Your task to perform on an android device: open wifi settings Image 0: 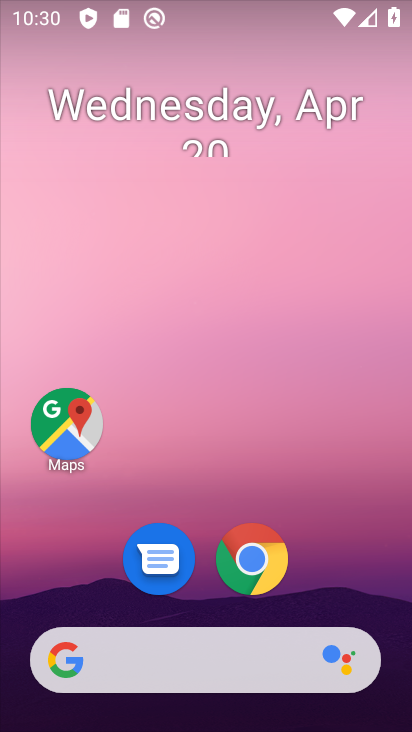
Step 0: drag from (301, 612) to (294, 11)
Your task to perform on an android device: open wifi settings Image 1: 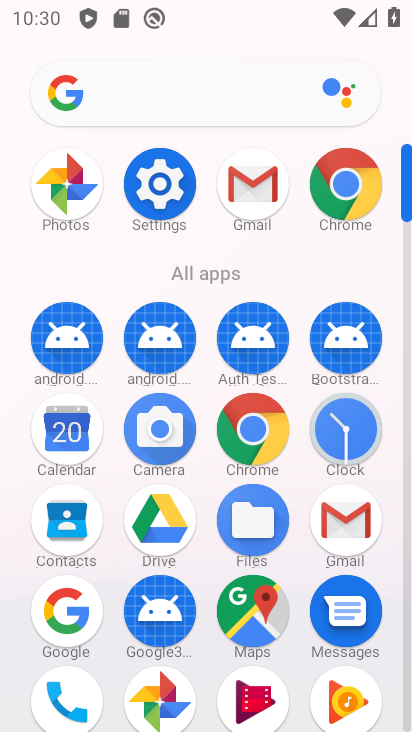
Step 1: drag from (208, 651) to (209, 183)
Your task to perform on an android device: open wifi settings Image 2: 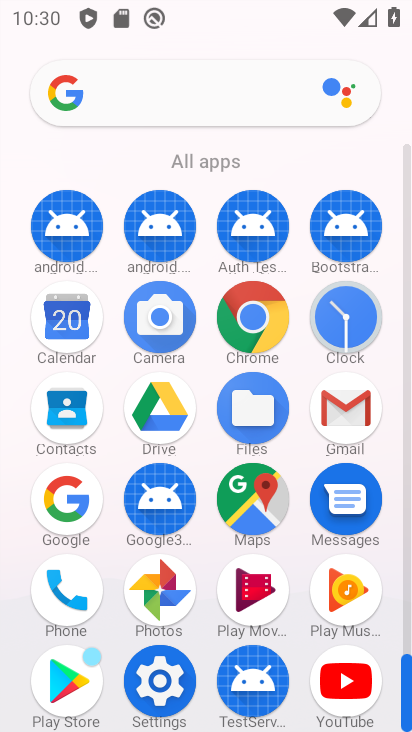
Step 2: click (170, 687)
Your task to perform on an android device: open wifi settings Image 3: 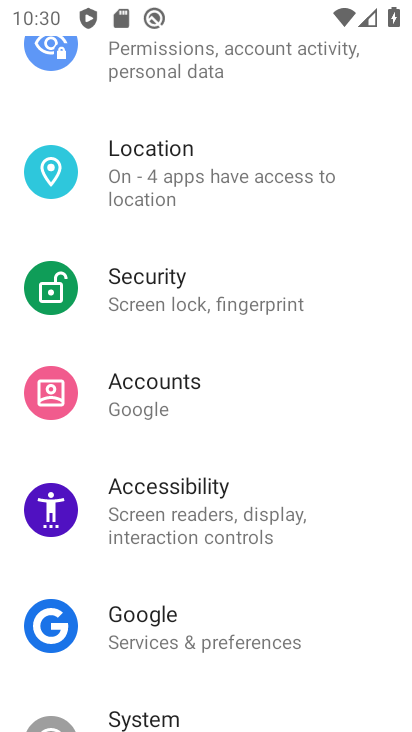
Step 3: drag from (250, 195) to (259, 674)
Your task to perform on an android device: open wifi settings Image 4: 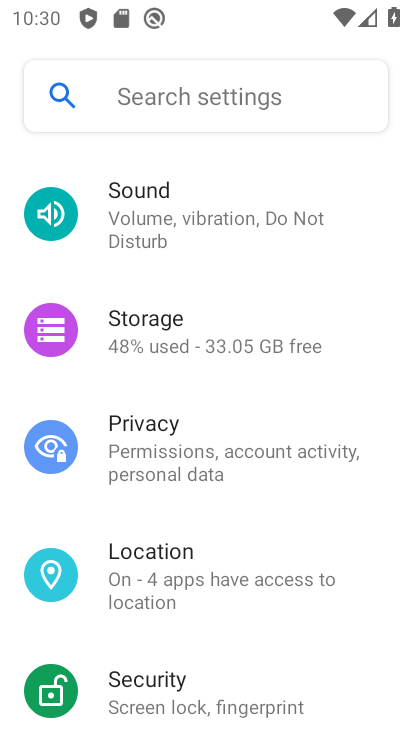
Step 4: drag from (198, 297) to (178, 681)
Your task to perform on an android device: open wifi settings Image 5: 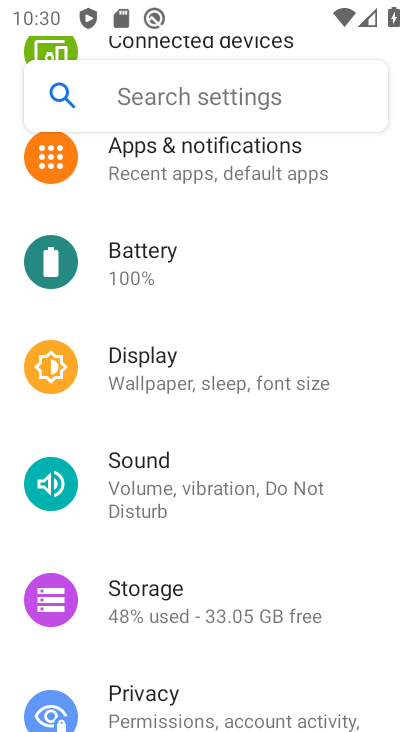
Step 5: drag from (189, 342) to (171, 707)
Your task to perform on an android device: open wifi settings Image 6: 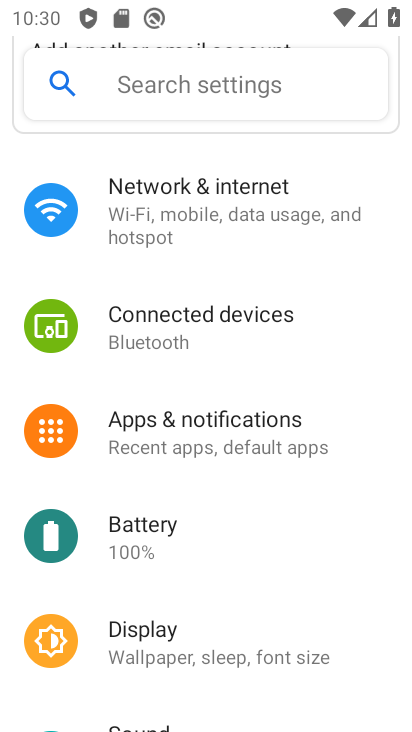
Step 6: click (201, 224)
Your task to perform on an android device: open wifi settings Image 7: 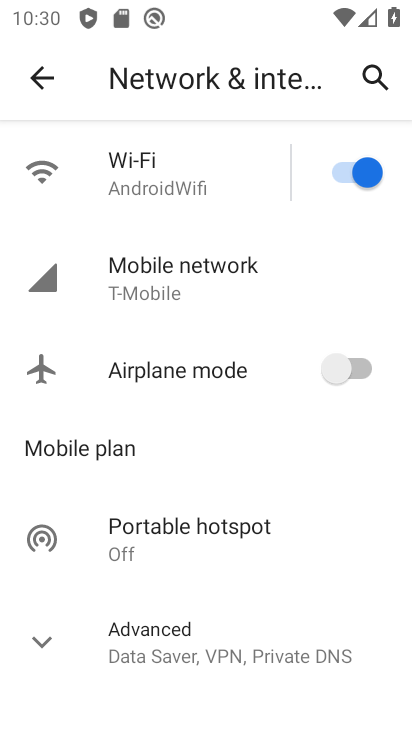
Step 7: click (179, 178)
Your task to perform on an android device: open wifi settings Image 8: 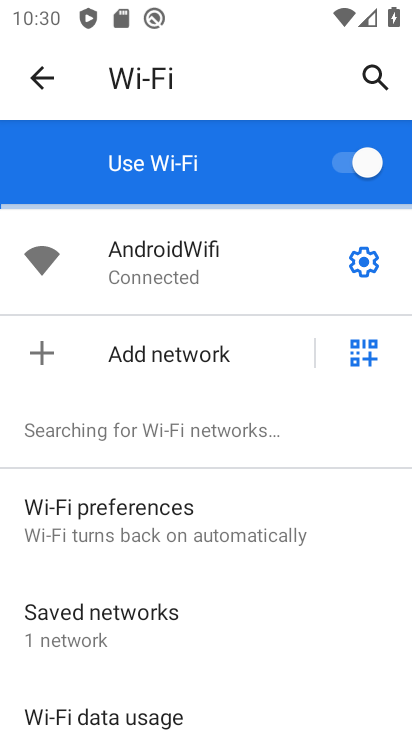
Step 8: task complete